Your task to perform on an android device: open wifi settings Image 0: 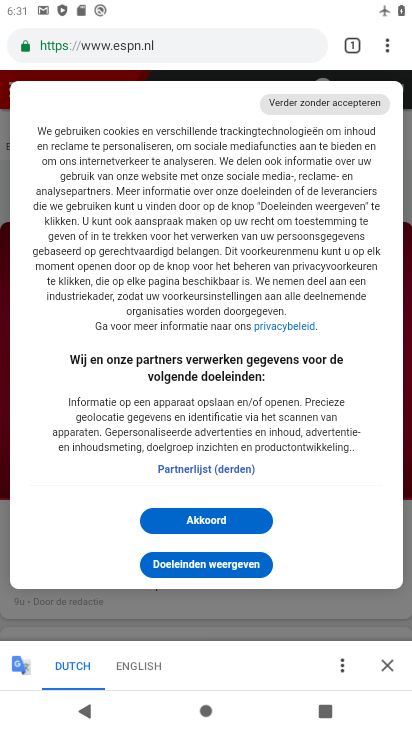
Step 0: click (125, 582)
Your task to perform on an android device: open wifi settings Image 1: 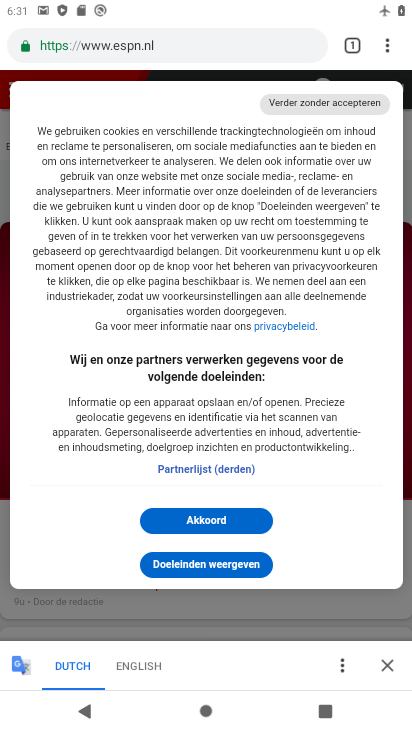
Step 1: press home button
Your task to perform on an android device: open wifi settings Image 2: 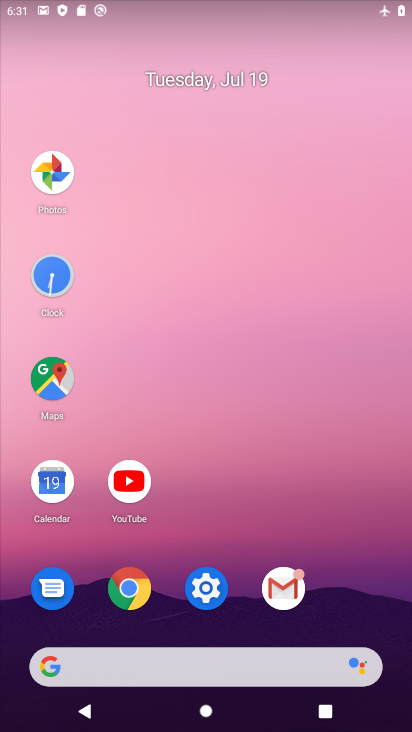
Step 2: click (214, 584)
Your task to perform on an android device: open wifi settings Image 3: 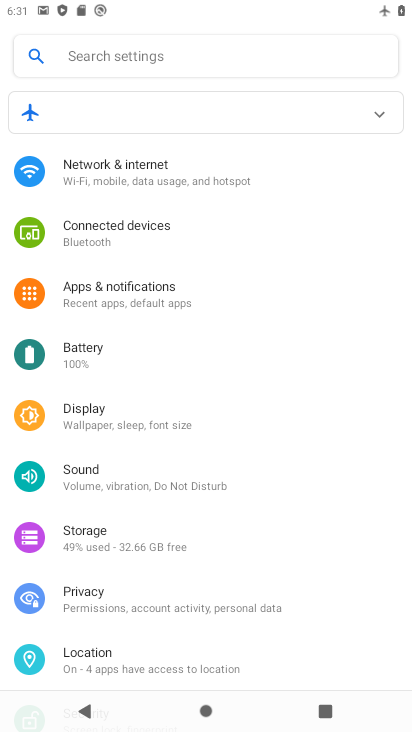
Step 3: click (108, 166)
Your task to perform on an android device: open wifi settings Image 4: 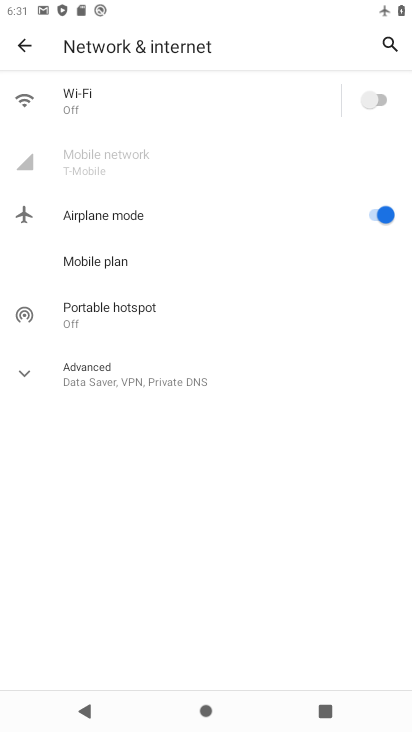
Step 4: task complete